Your task to perform on an android device: Go to calendar. Show me events next week Image 0: 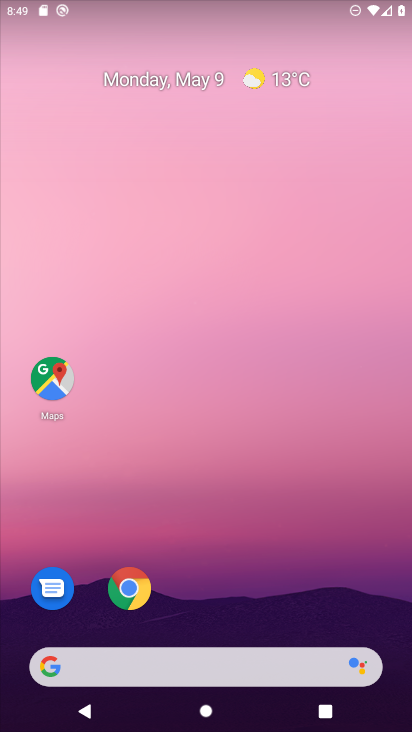
Step 0: drag from (206, 627) to (240, 81)
Your task to perform on an android device: Go to calendar. Show me events next week Image 1: 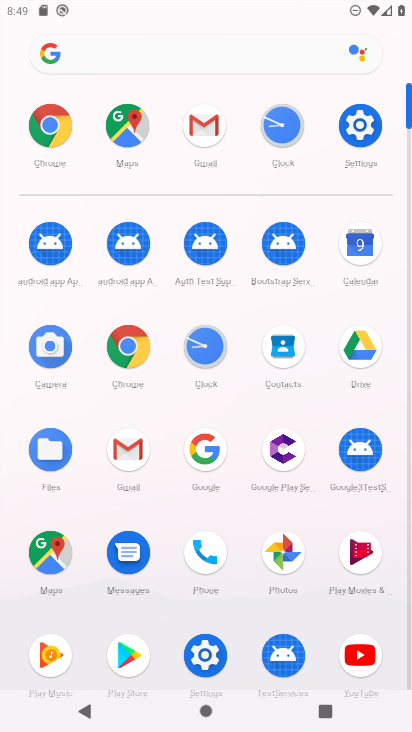
Step 1: click (364, 254)
Your task to perform on an android device: Go to calendar. Show me events next week Image 2: 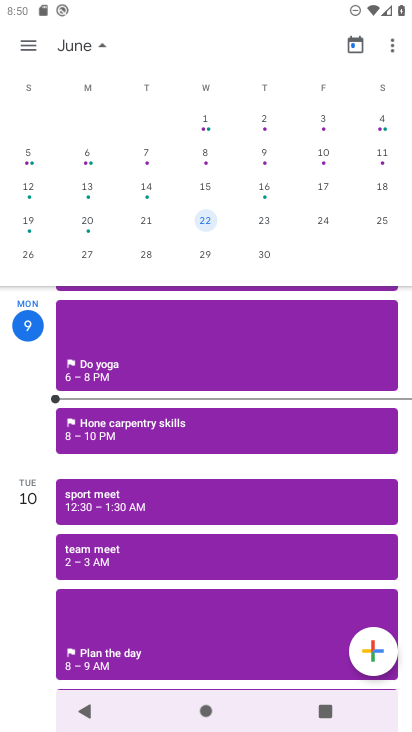
Step 2: click (217, 188)
Your task to perform on an android device: Go to calendar. Show me events next week Image 3: 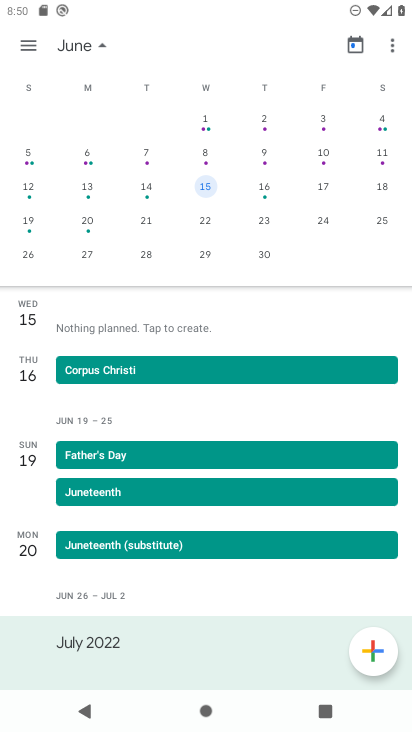
Step 3: task complete